Your task to perform on an android device: Go to privacy settings Image 0: 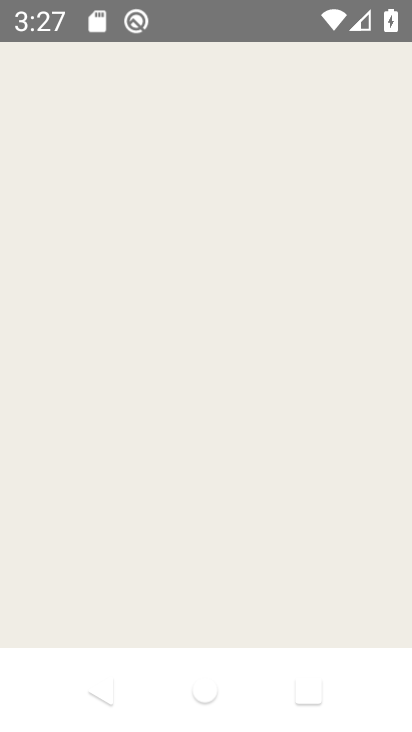
Step 0: press home button
Your task to perform on an android device: Go to privacy settings Image 1: 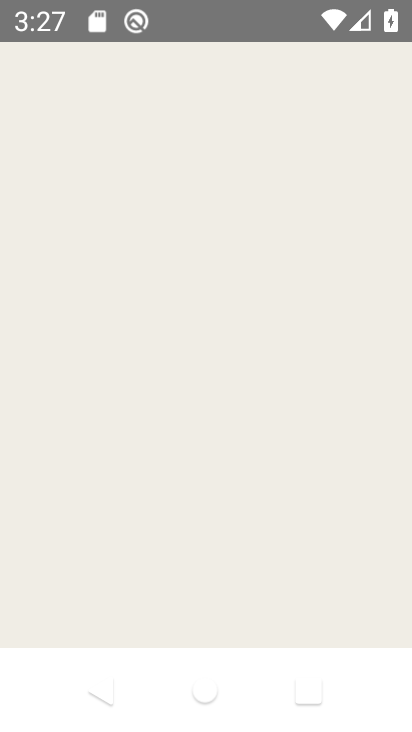
Step 1: click (229, 5)
Your task to perform on an android device: Go to privacy settings Image 2: 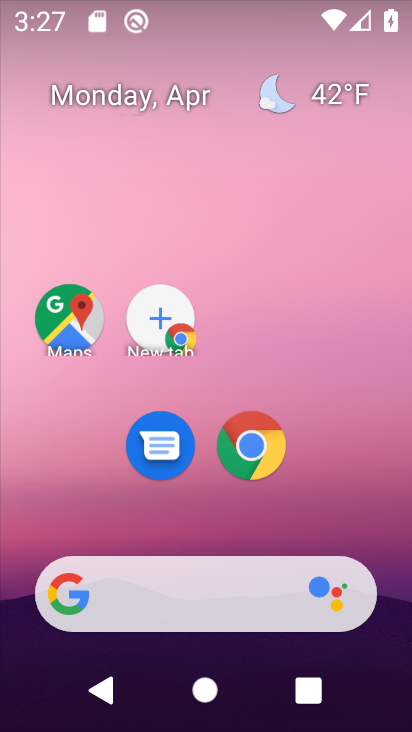
Step 2: drag from (207, 515) to (193, 53)
Your task to perform on an android device: Go to privacy settings Image 3: 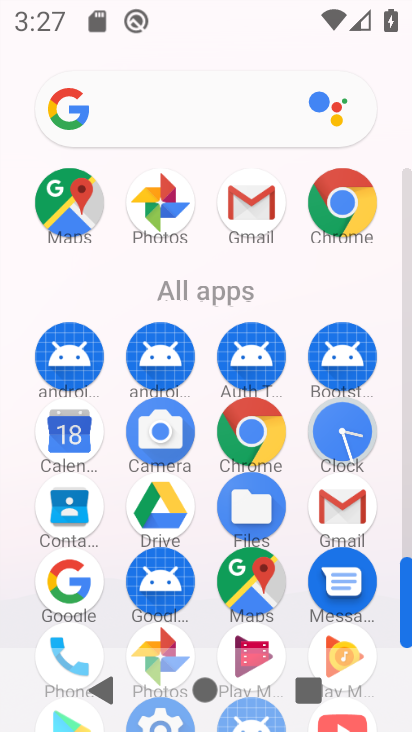
Step 3: drag from (204, 538) to (184, 132)
Your task to perform on an android device: Go to privacy settings Image 4: 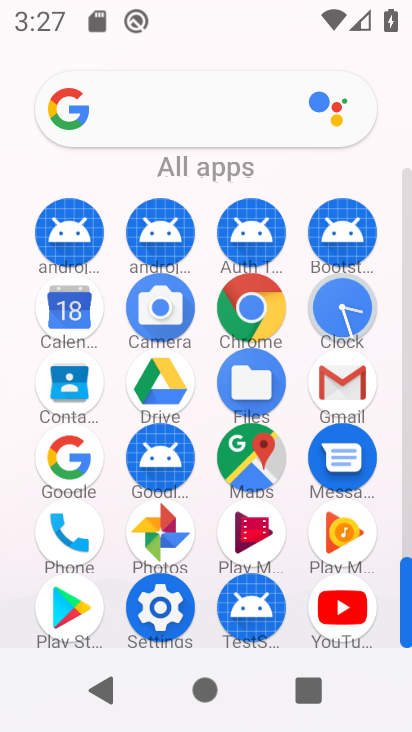
Step 4: click (157, 599)
Your task to perform on an android device: Go to privacy settings Image 5: 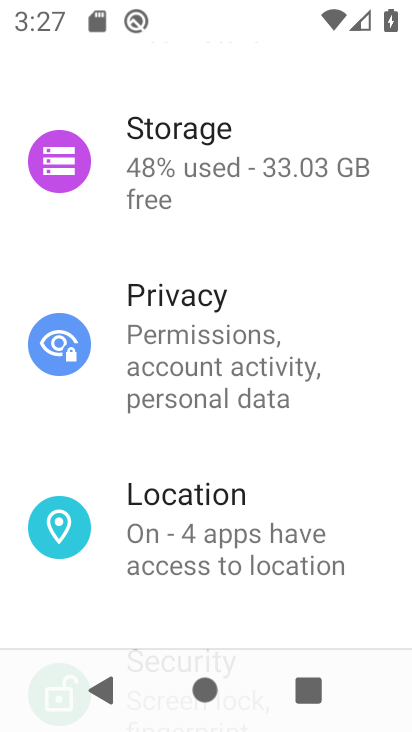
Step 5: click (190, 348)
Your task to perform on an android device: Go to privacy settings Image 6: 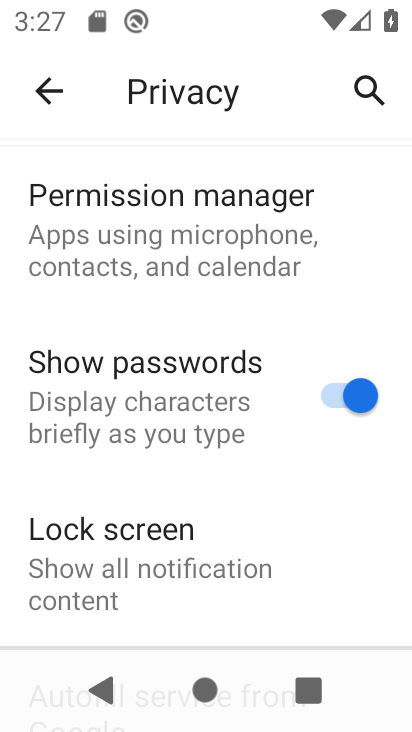
Step 6: drag from (218, 563) to (193, 114)
Your task to perform on an android device: Go to privacy settings Image 7: 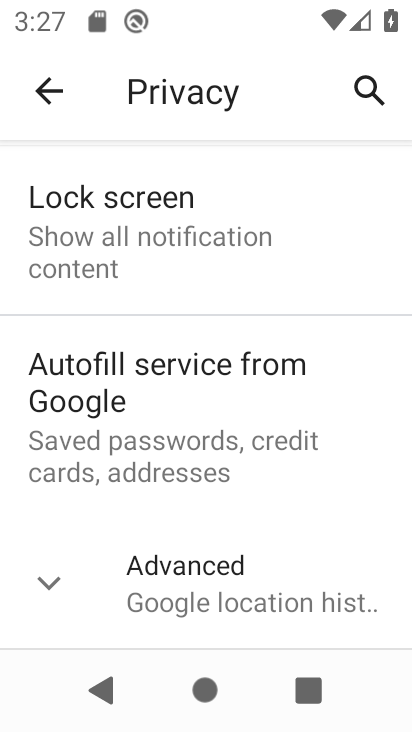
Step 7: click (44, 569)
Your task to perform on an android device: Go to privacy settings Image 8: 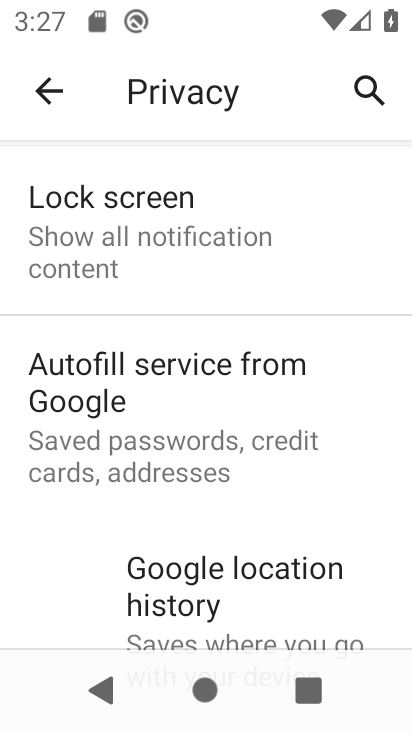
Step 8: task complete